Your task to perform on an android device: Open privacy settings Image 0: 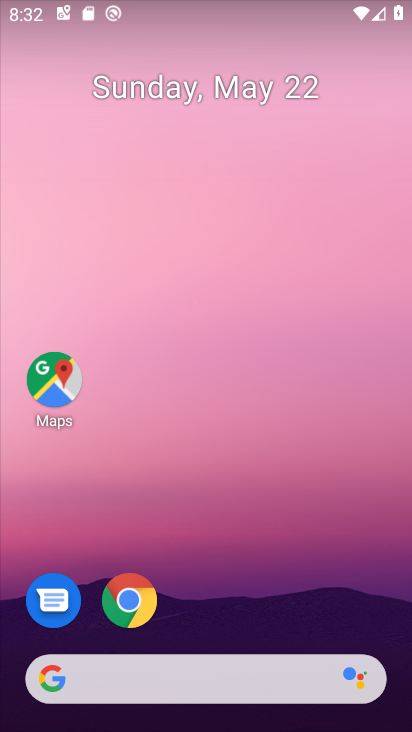
Step 0: drag from (185, 550) to (254, 240)
Your task to perform on an android device: Open privacy settings Image 1: 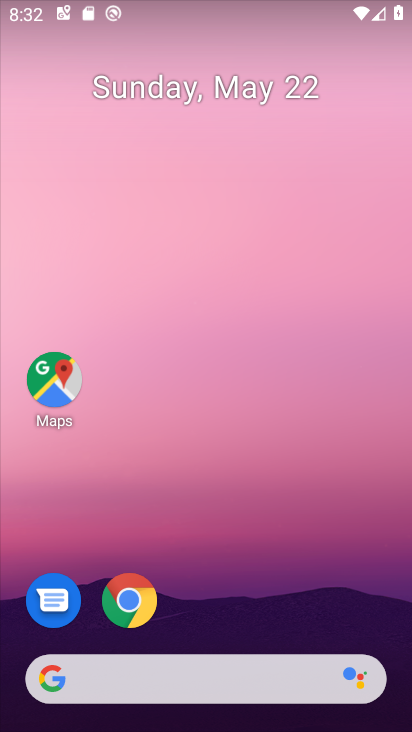
Step 1: drag from (181, 635) to (266, 230)
Your task to perform on an android device: Open privacy settings Image 2: 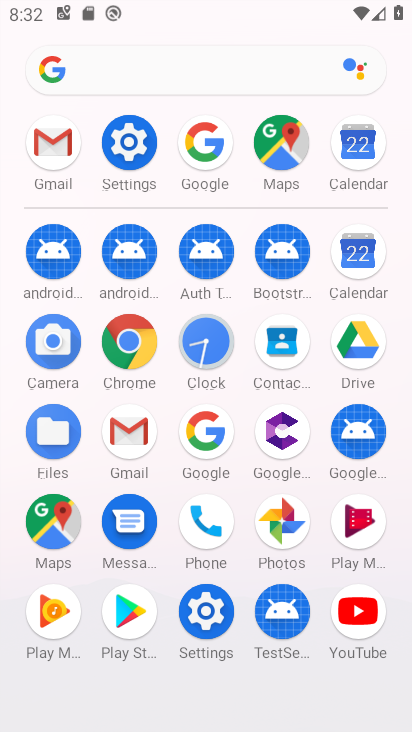
Step 2: click (128, 153)
Your task to perform on an android device: Open privacy settings Image 3: 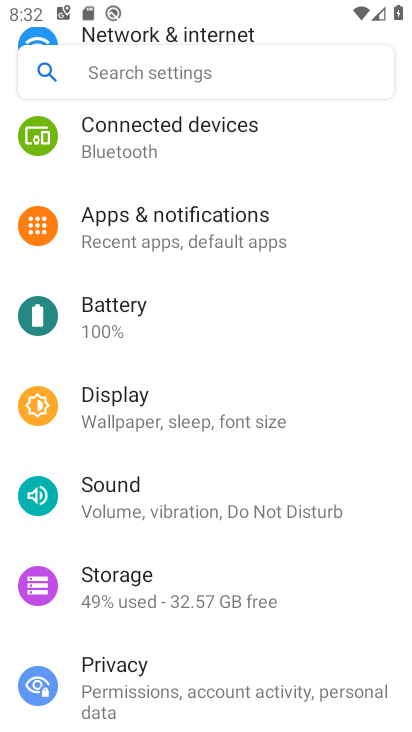
Step 3: click (155, 671)
Your task to perform on an android device: Open privacy settings Image 4: 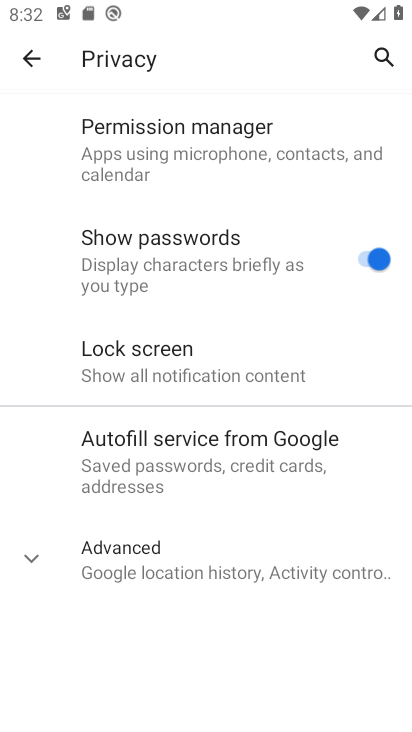
Step 4: click (103, 557)
Your task to perform on an android device: Open privacy settings Image 5: 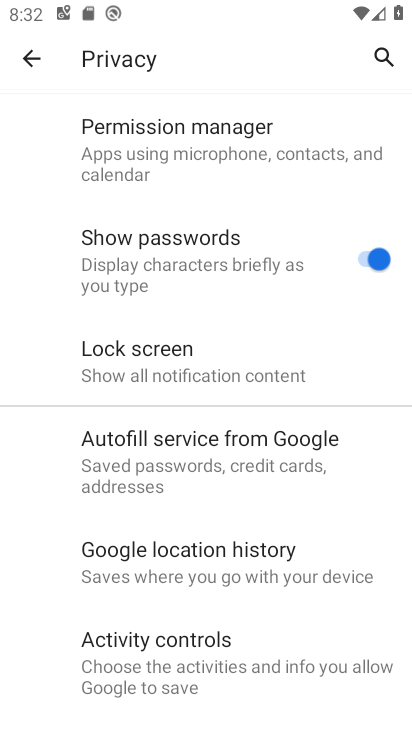
Step 5: task complete